Your task to perform on an android device: empty trash in the gmail app Image 0: 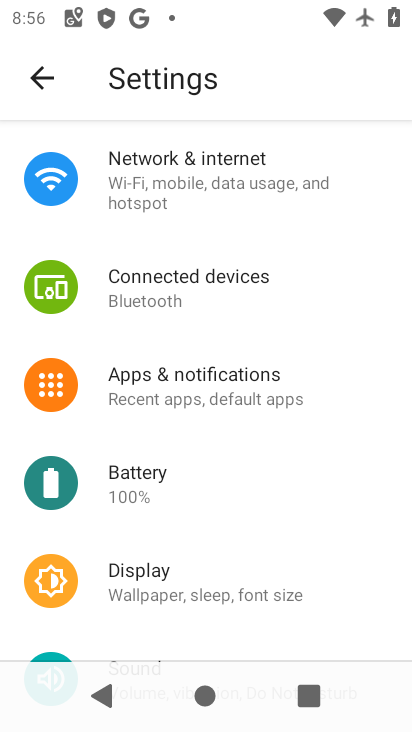
Step 0: press home button
Your task to perform on an android device: empty trash in the gmail app Image 1: 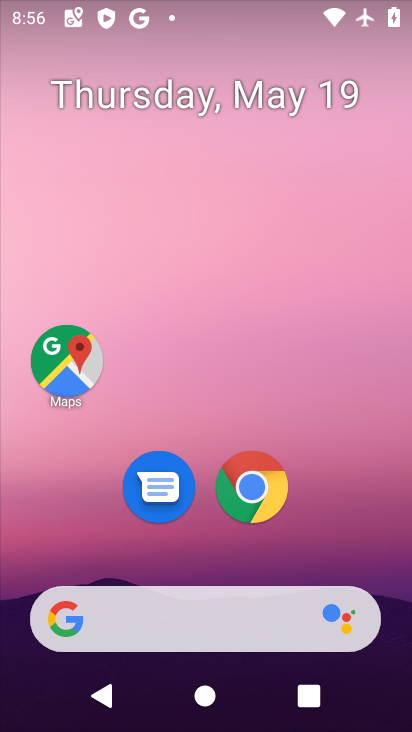
Step 1: drag from (184, 569) to (220, 4)
Your task to perform on an android device: empty trash in the gmail app Image 2: 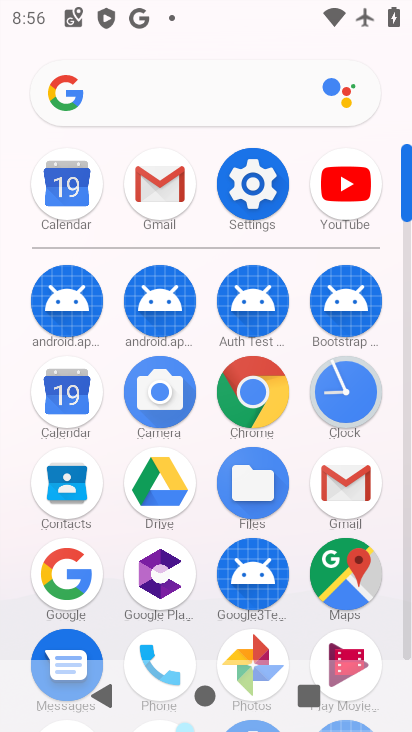
Step 2: click (354, 486)
Your task to perform on an android device: empty trash in the gmail app Image 3: 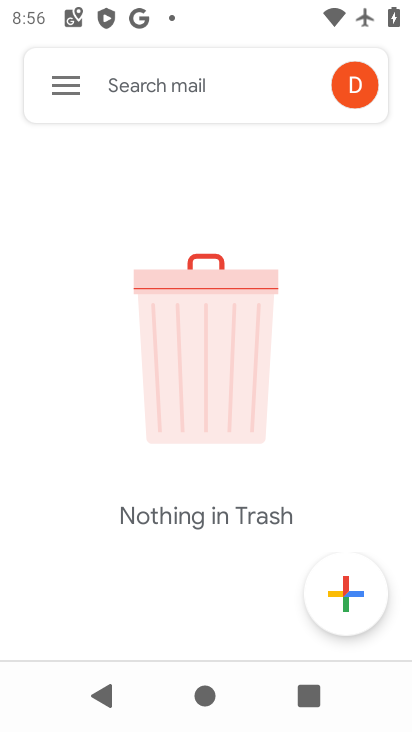
Step 3: click (66, 84)
Your task to perform on an android device: empty trash in the gmail app Image 4: 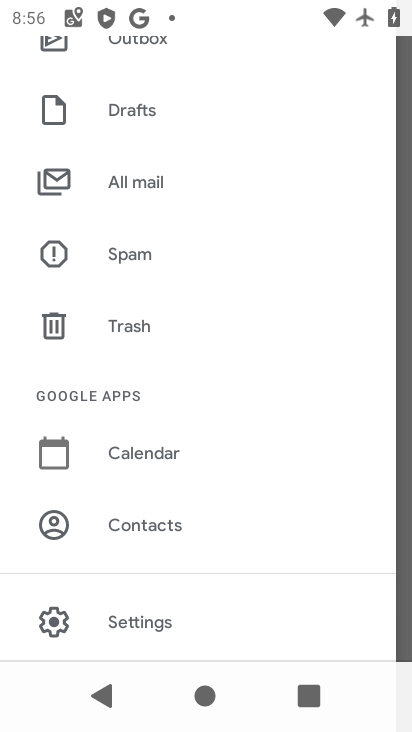
Step 4: click (148, 338)
Your task to perform on an android device: empty trash in the gmail app Image 5: 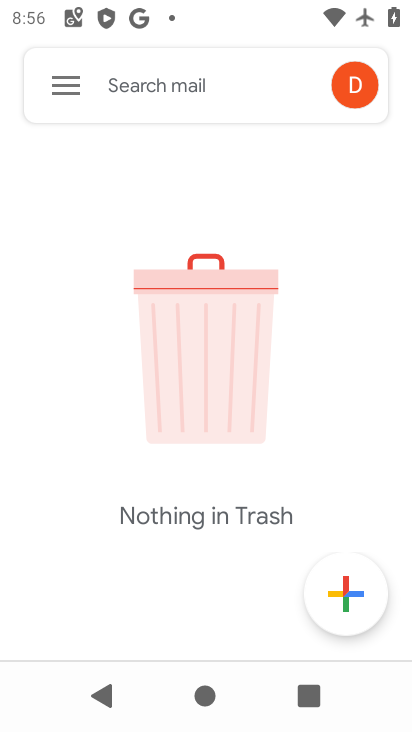
Step 5: task complete